Your task to perform on an android device: open a new tab in the chrome app Image 0: 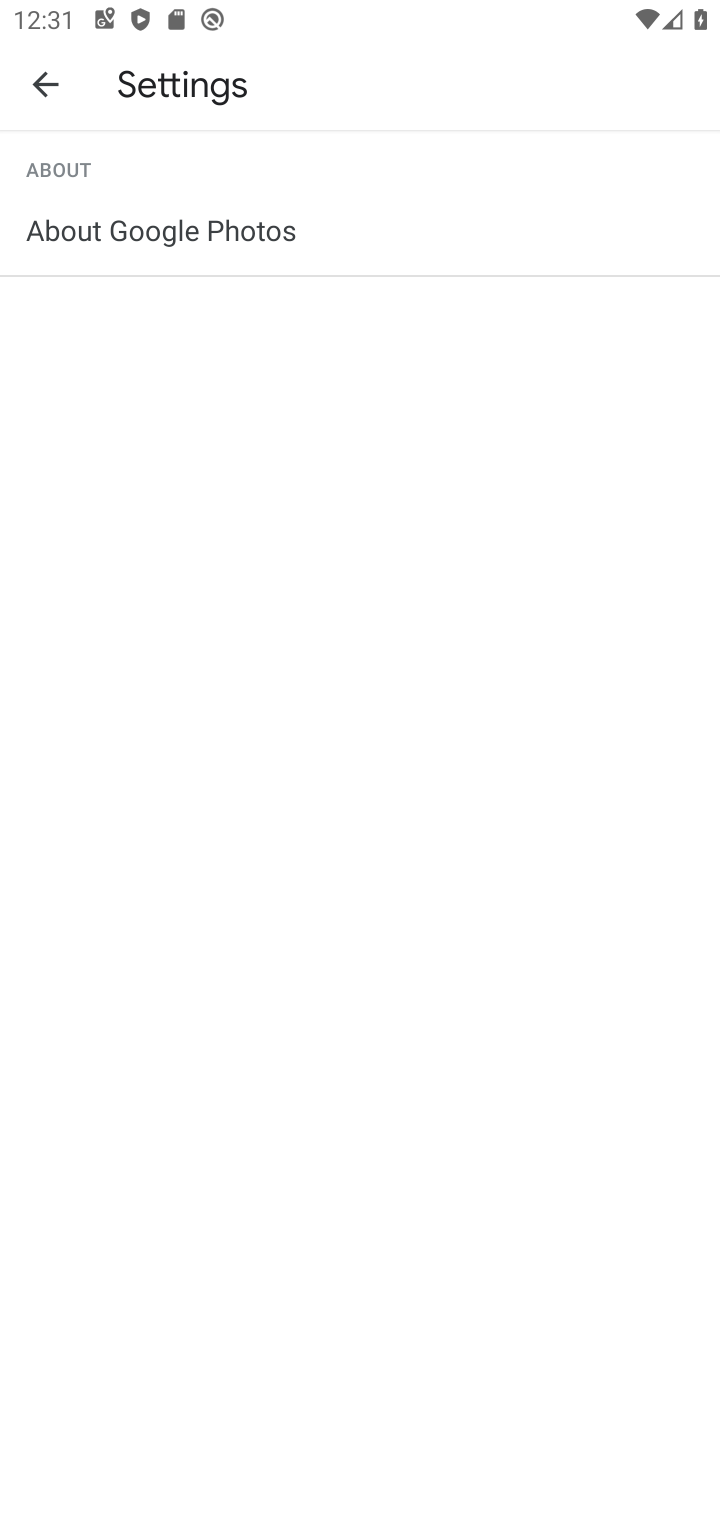
Step 0: drag from (277, 1312) to (492, 155)
Your task to perform on an android device: open a new tab in the chrome app Image 1: 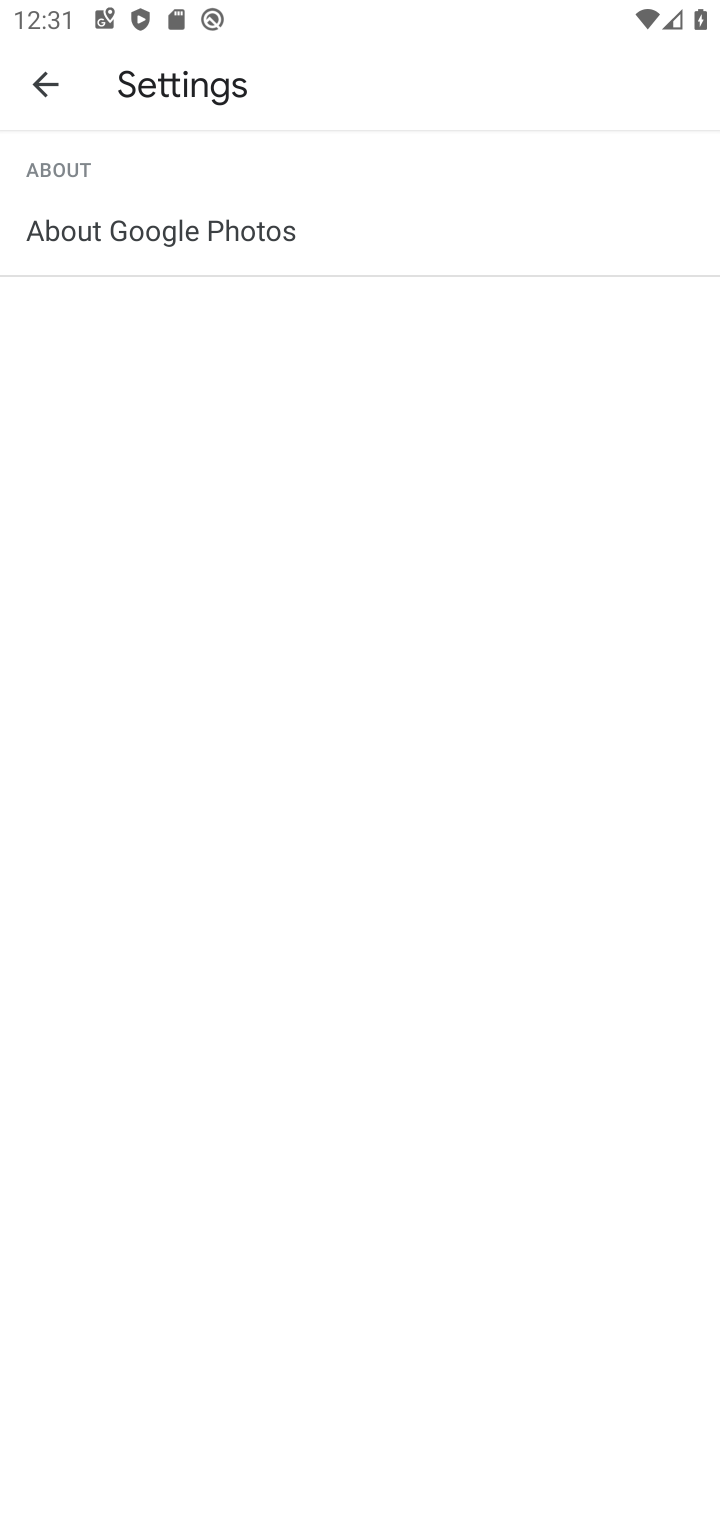
Step 1: press back button
Your task to perform on an android device: open a new tab in the chrome app Image 2: 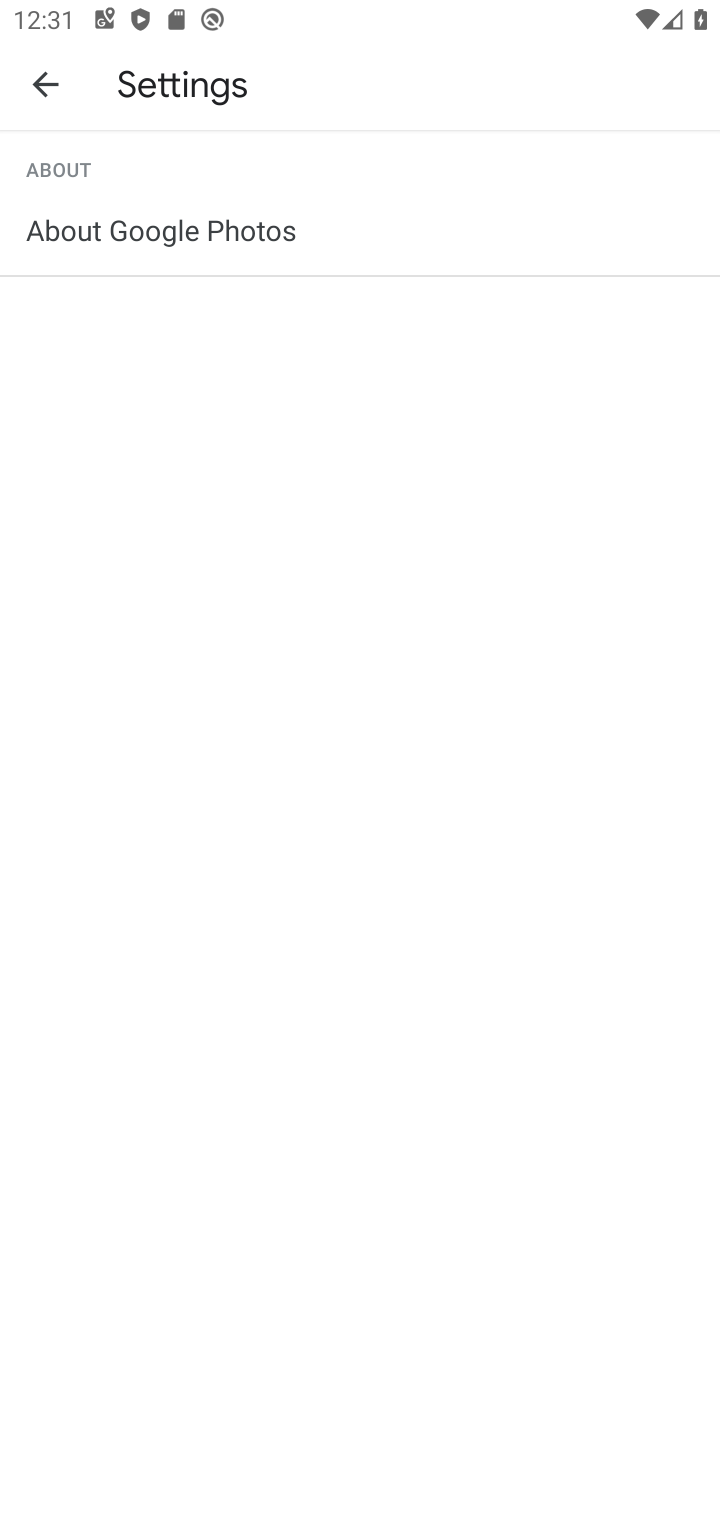
Step 2: press back button
Your task to perform on an android device: open a new tab in the chrome app Image 3: 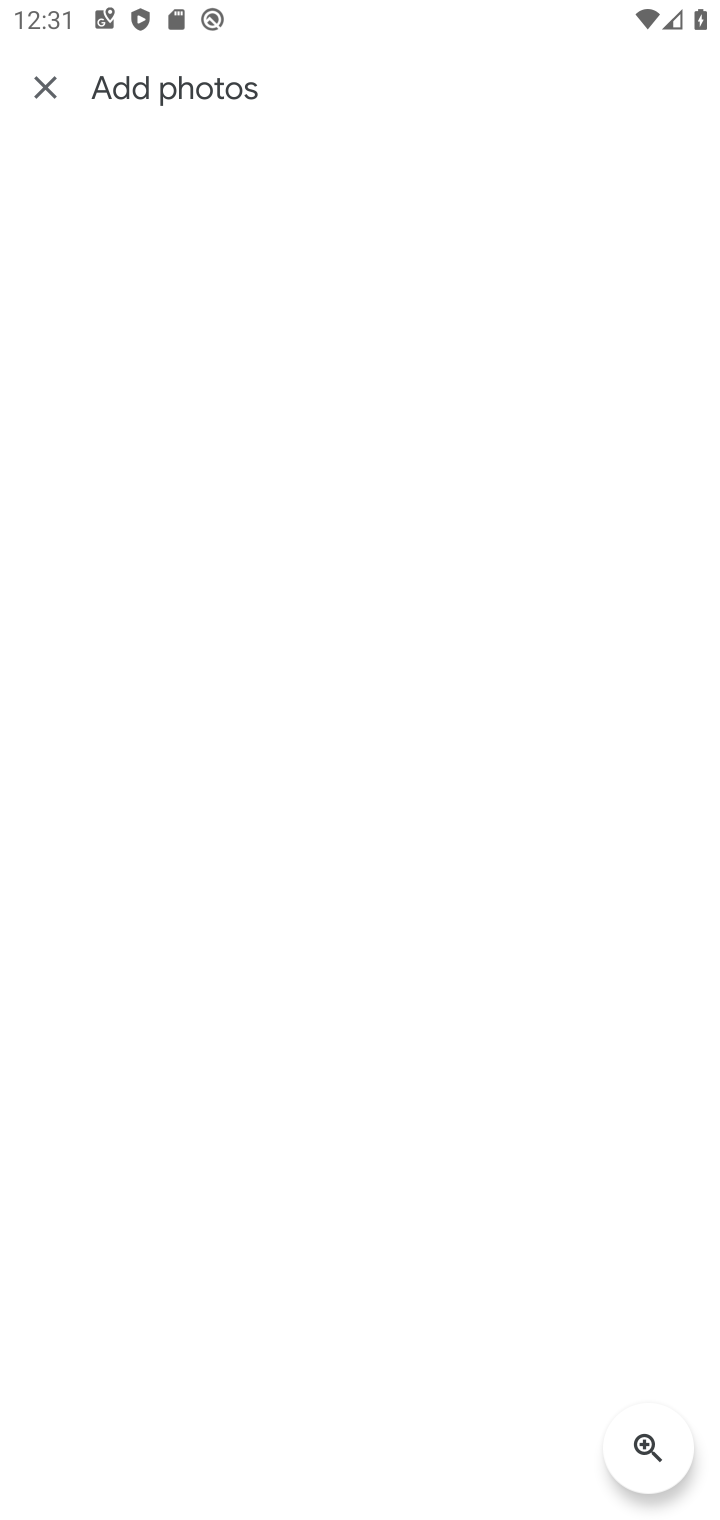
Step 3: press back button
Your task to perform on an android device: open a new tab in the chrome app Image 4: 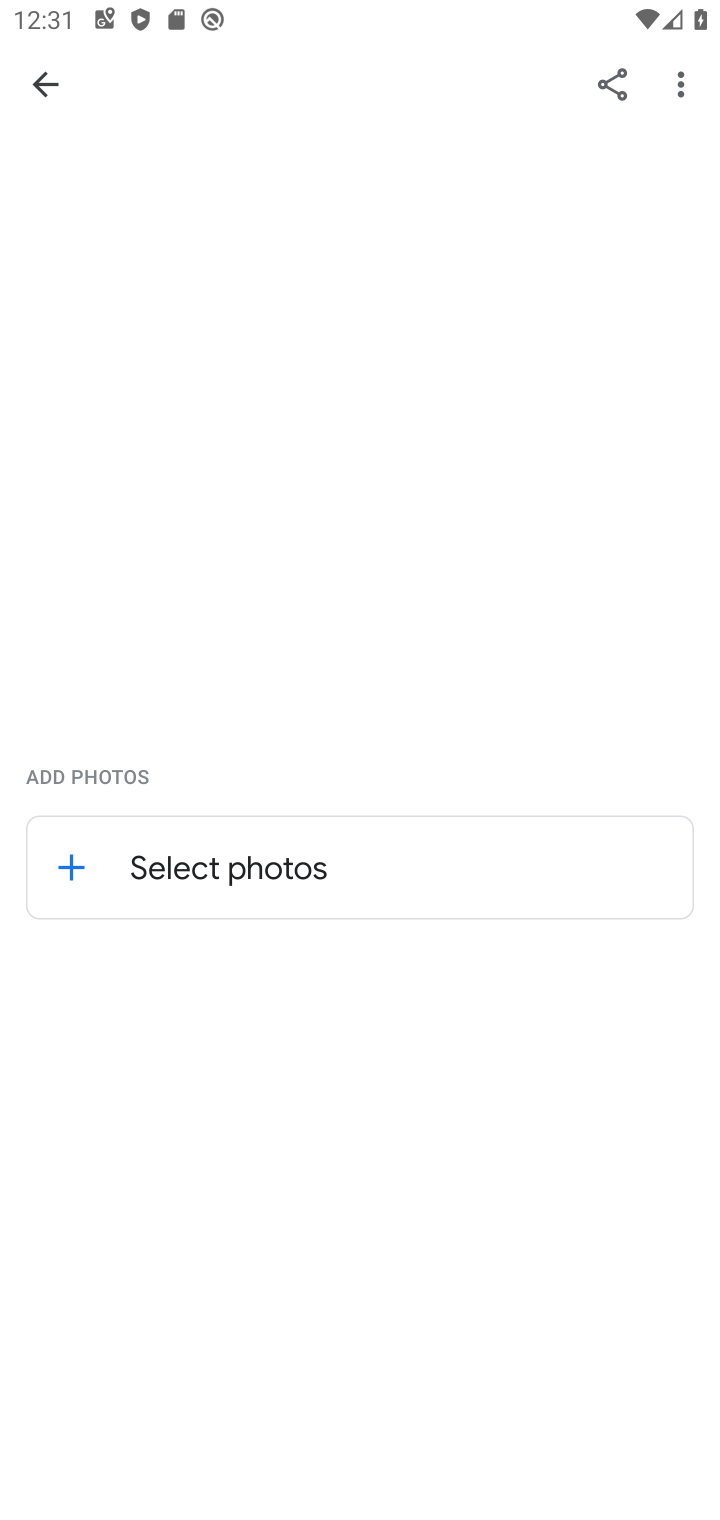
Step 4: press home button
Your task to perform on an android device: open a new tab in the chrome app Image 5: 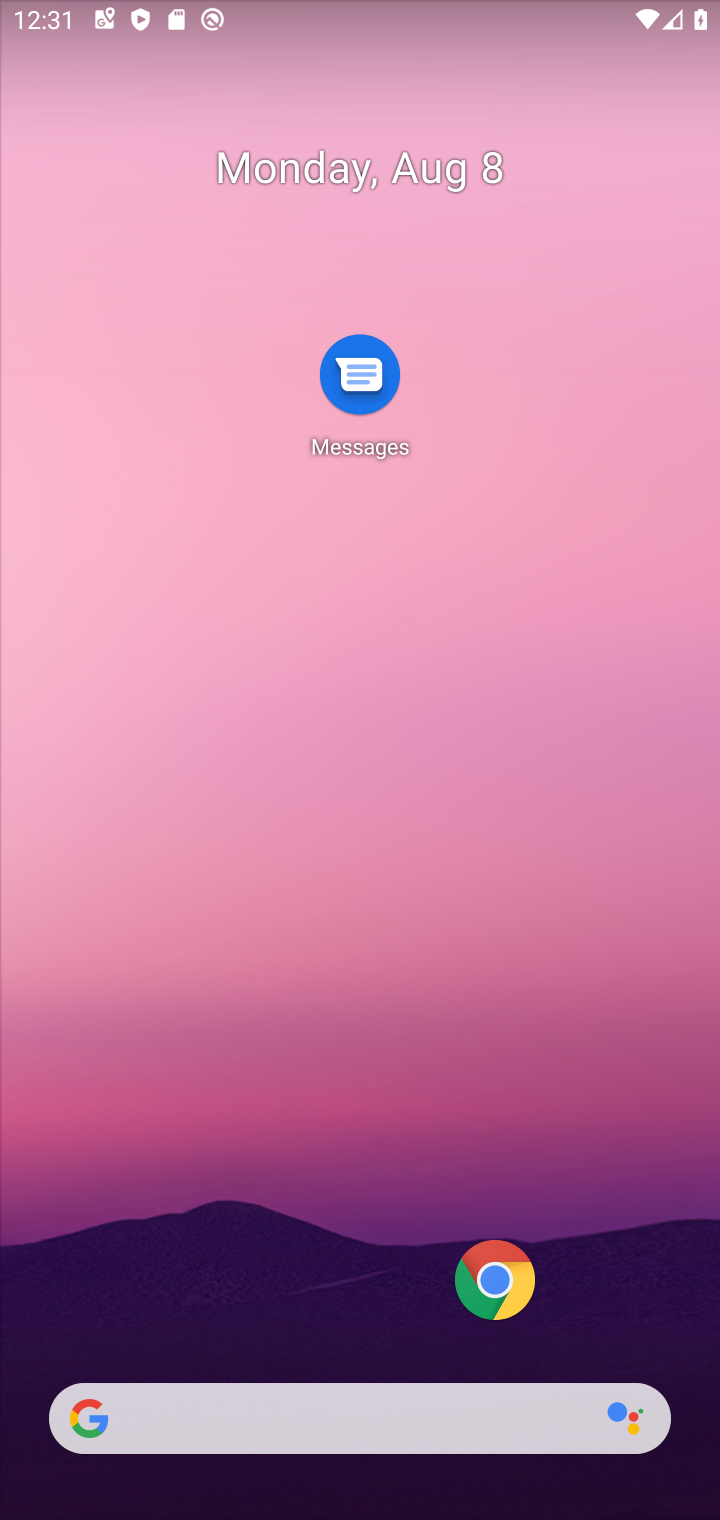
Step 5: click (509, 1271)
Your task to perform on an android device: open a new tab in the chrome app Image 6: 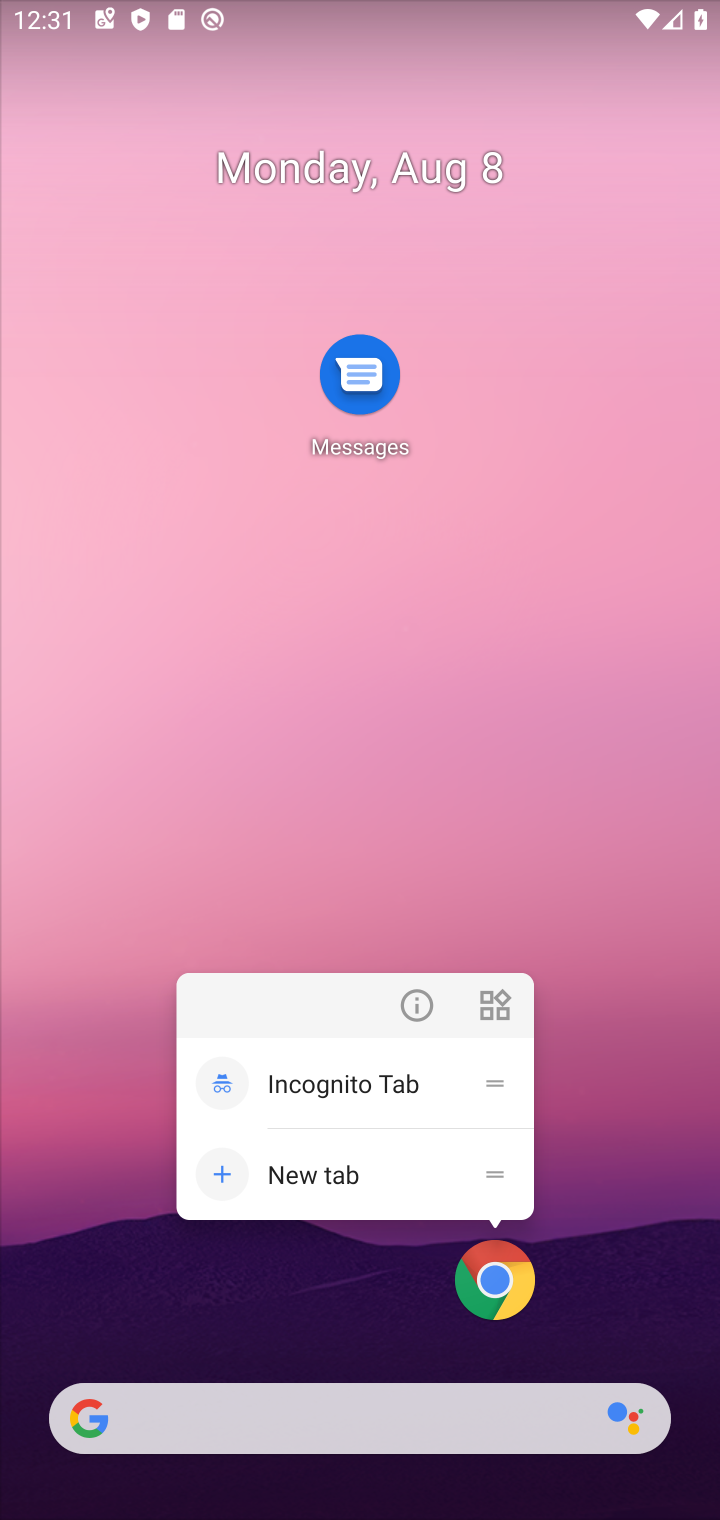
Step 6: click (503, 1273)
Your task to perform on an android device: open a new tab in the chrome app Image 7: 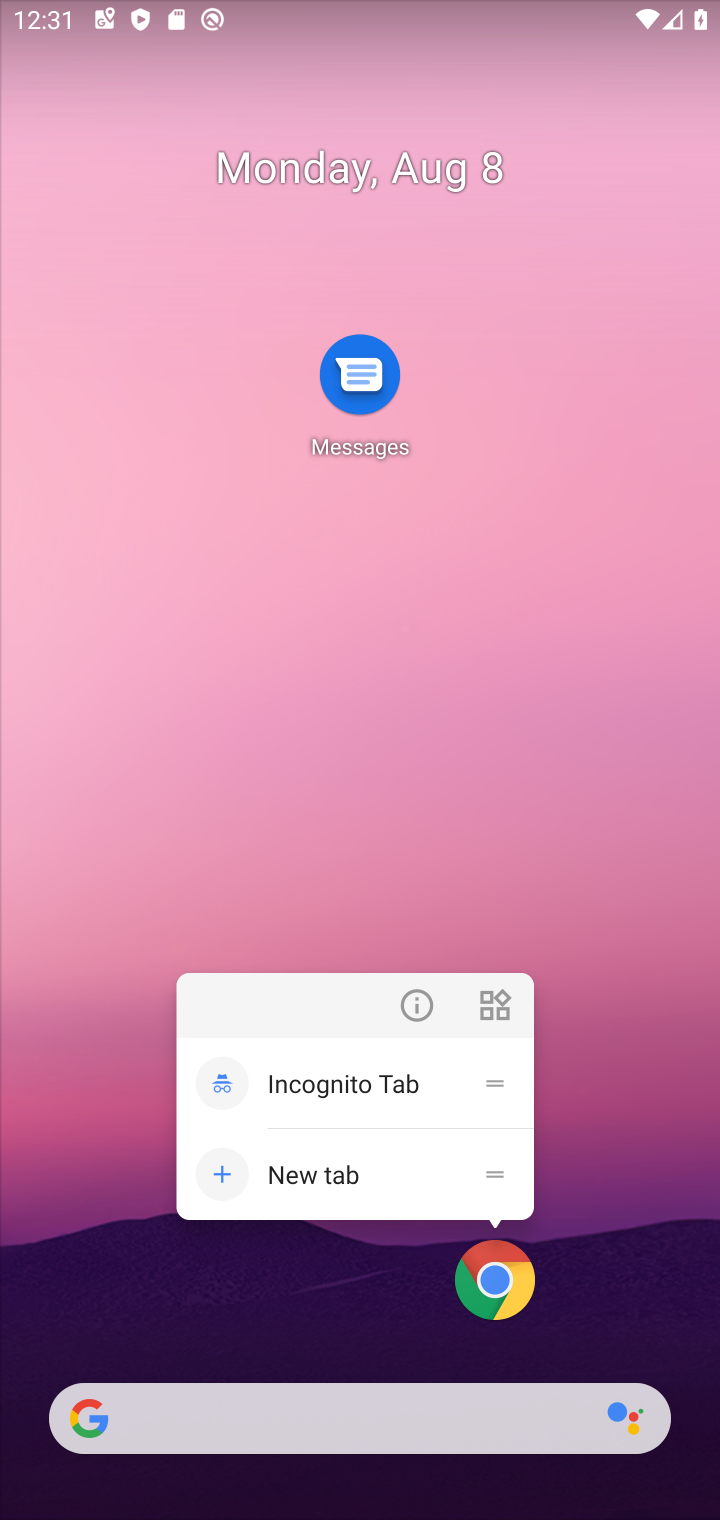
Step 7: click (509, 1277)
Your task to perform on an android device: open a new tab in the chrome app Image 8: 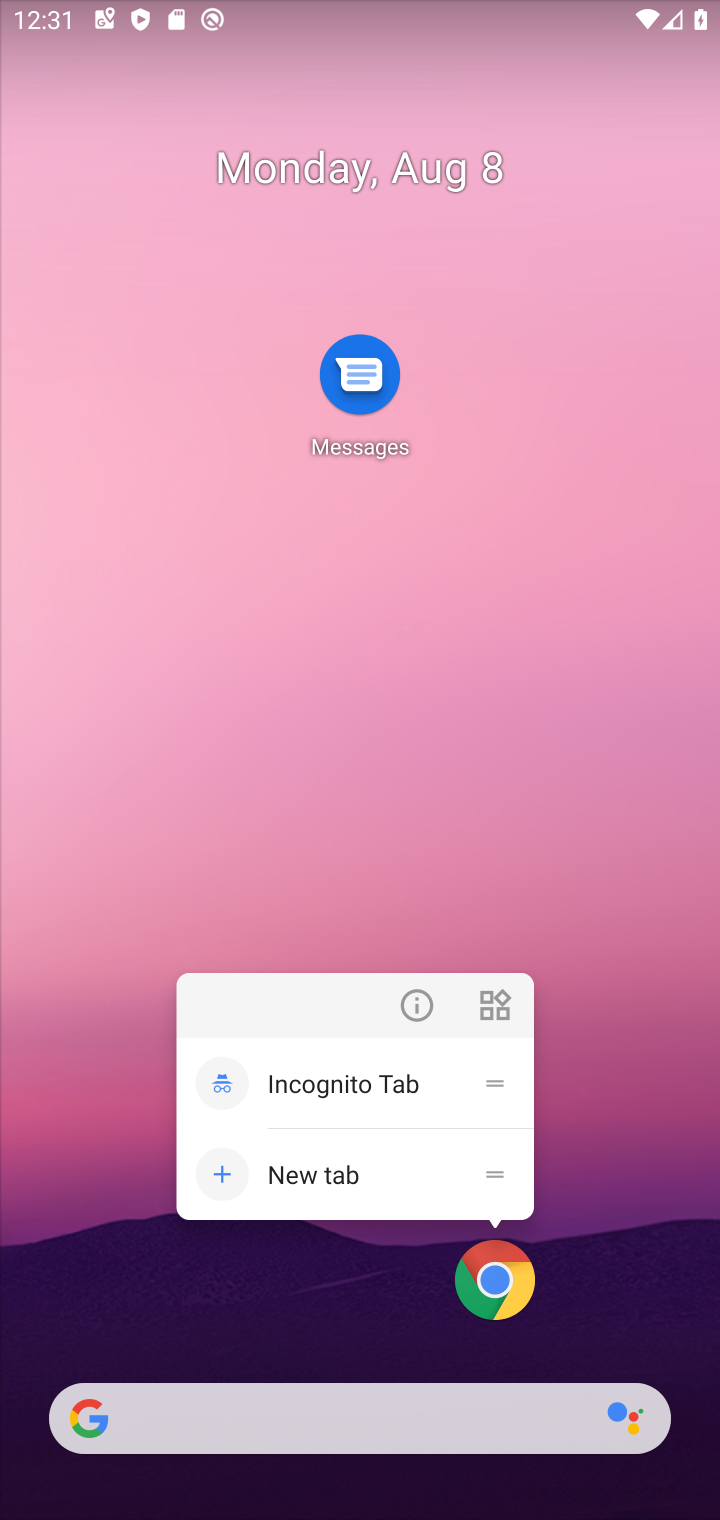
Step 8: click (497, 1265)
Your task to perform on an android device: open a new tab in the chrome app Image 9: 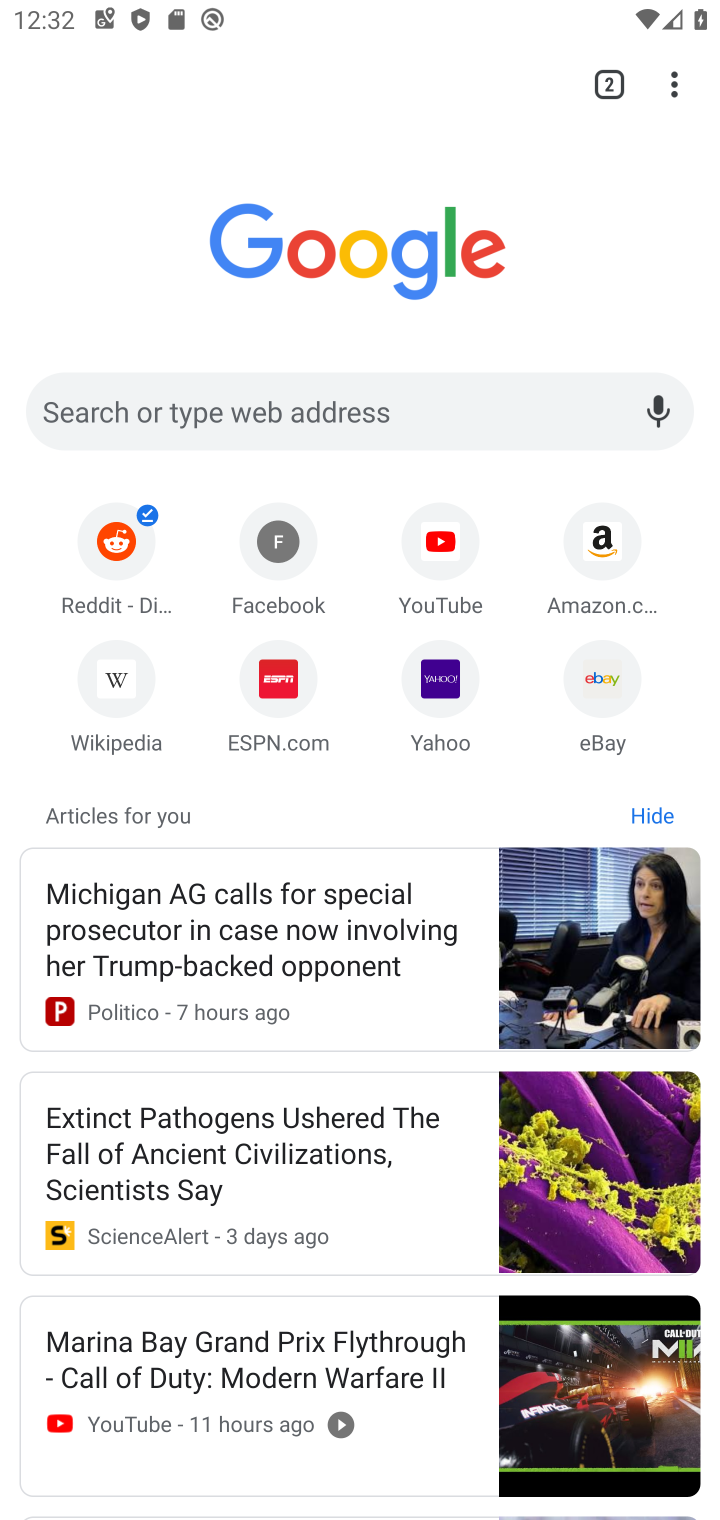
Step 9: task complete